Your task to perform on an android device: open app "Life360: Find Family & Friends" (install if not already installed) and enter user name: "gusts@gmail.com" and password: "assurers" Image 0: 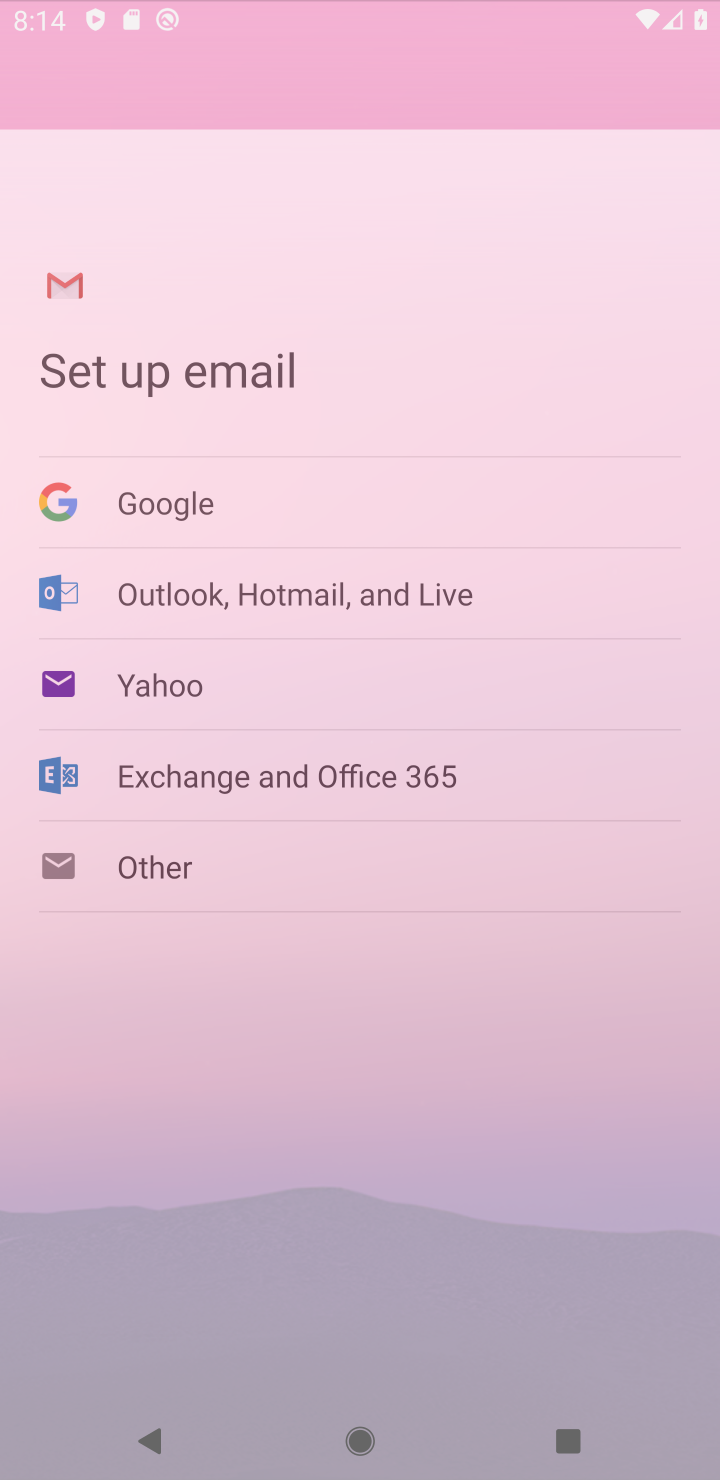
Step 0: click (597, 84)
Your task to perform on an android device: open app "Life360: Find Family & Friends" (install if not already installed) and enter user name: "gusts@gmail.com" and password: "assurers" Image 1: 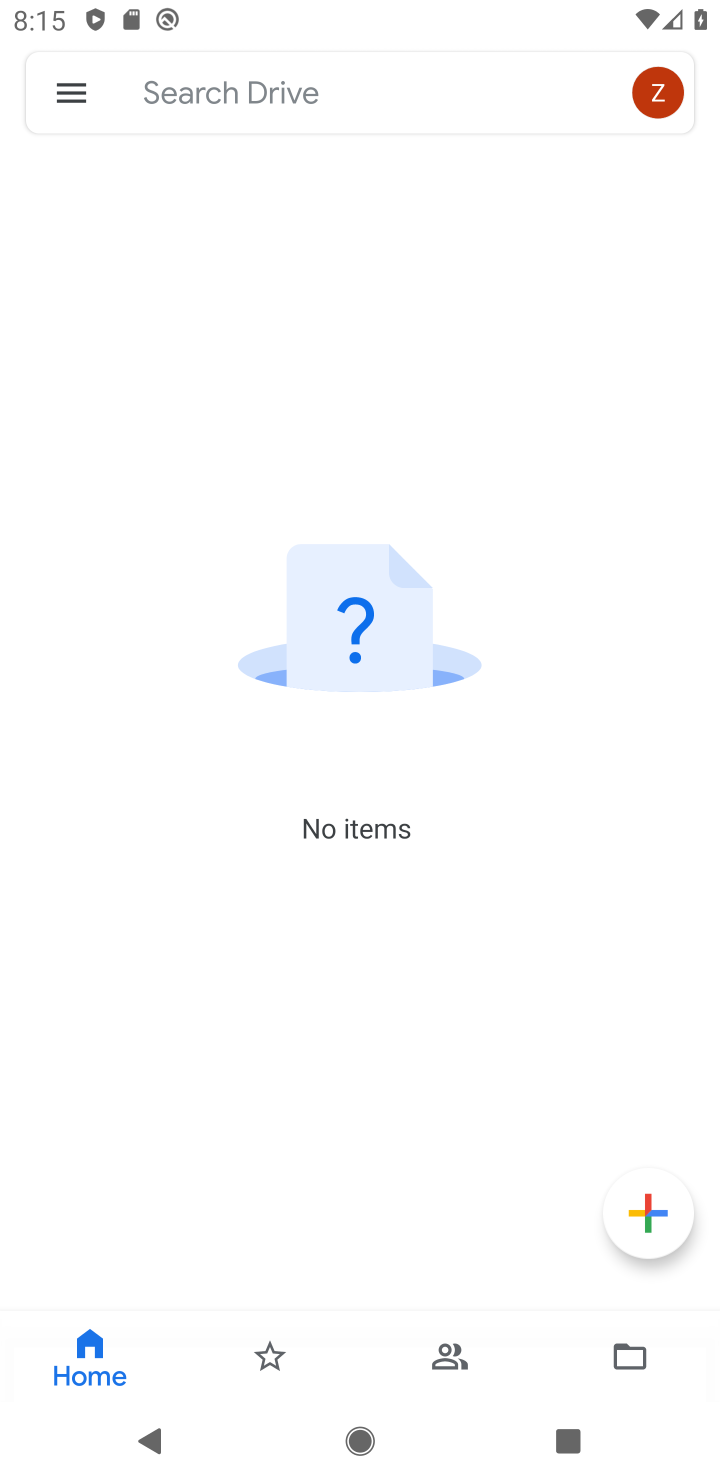
Step 1: press back button
Your task to perform on an android device: open app "Life360: Find Family & Friends" (install if not already installed) and enter user name: "gusts@gmail.com" and password: "assurers" Image 2: 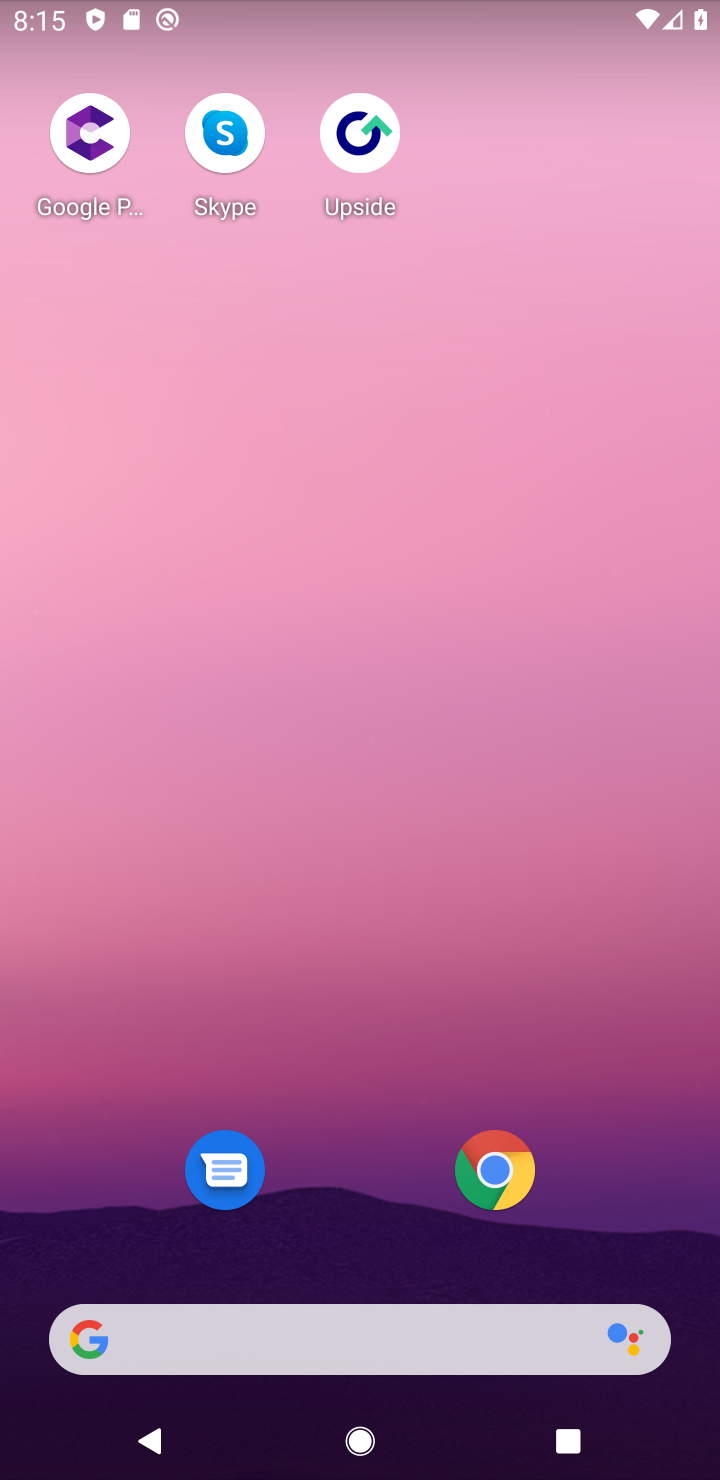
Step 2: drag from (345, 1305) to (540, 5)
Your task to perform on an android device: open app "Life360: Find Family & Friends" (install if not already installed) and enter user name: "gusts@gmail.com" and password: "assurers" Image 3: 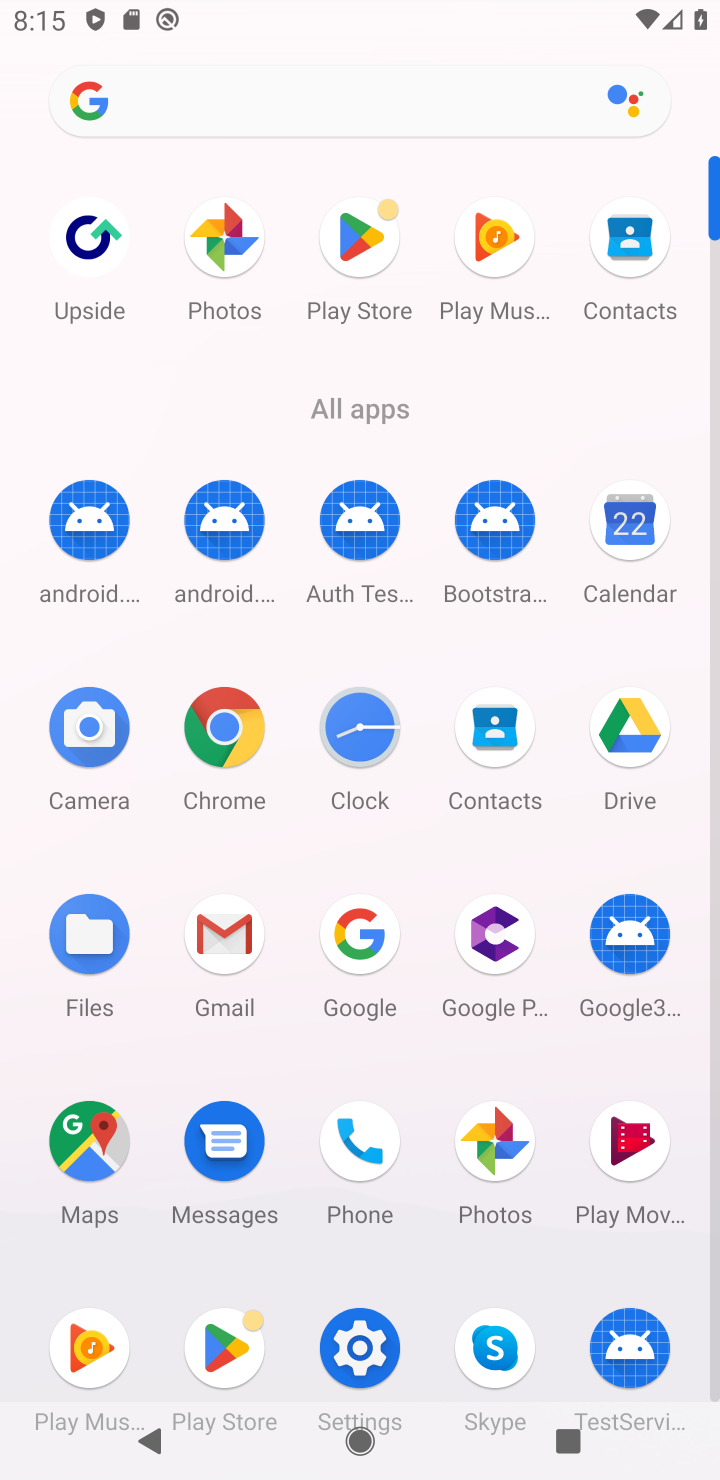
Step 3: click (370, 230)
Your task to perform on an android device: open app "Life360: Find Family & Friends" (install if not already installed) and enter user name: "gusts@gmail.com" and password: "assurers" Image 4: 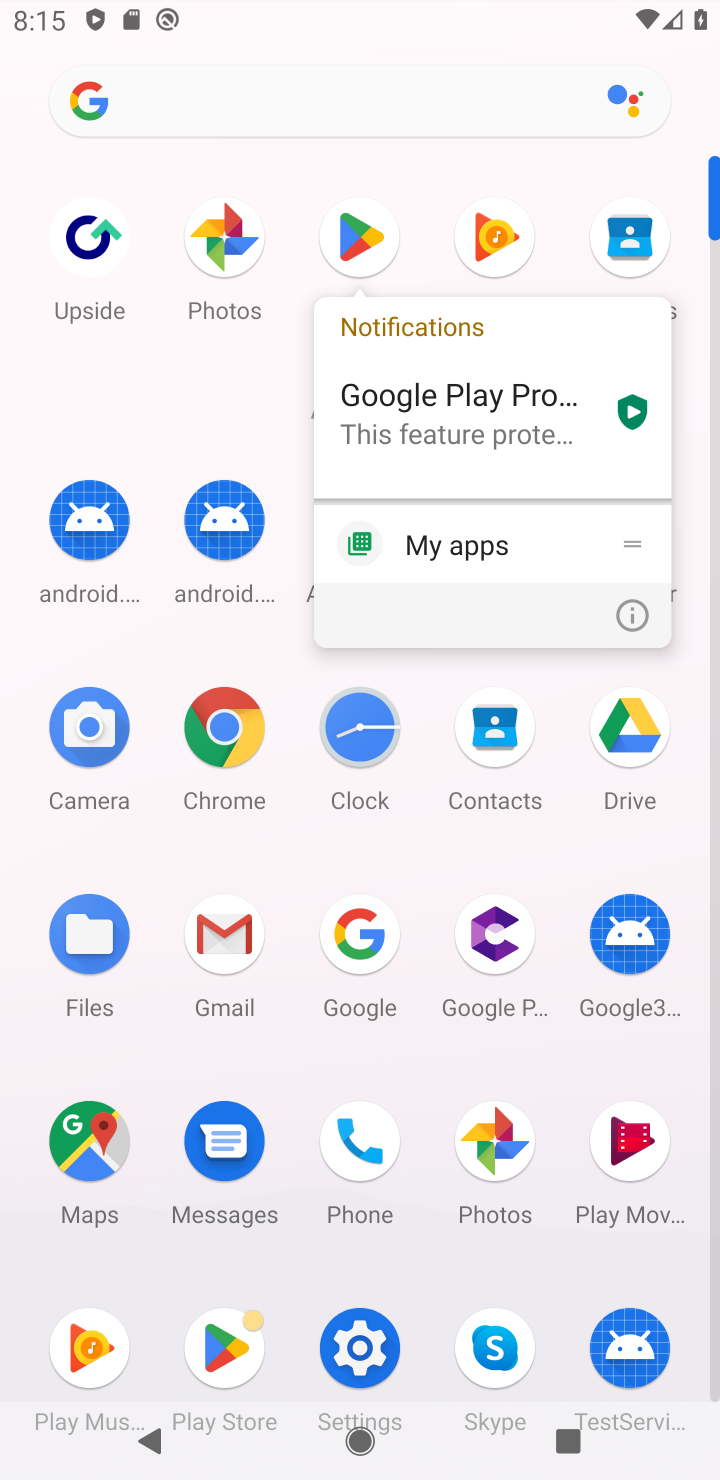
Step 4: click (368, 230)
Your task to perform on an android device: open app "Life360: Find Family & Friends" (install if not already installed) and enter user name: "gusts@gmail.com" and password: "assurers" Image 5: 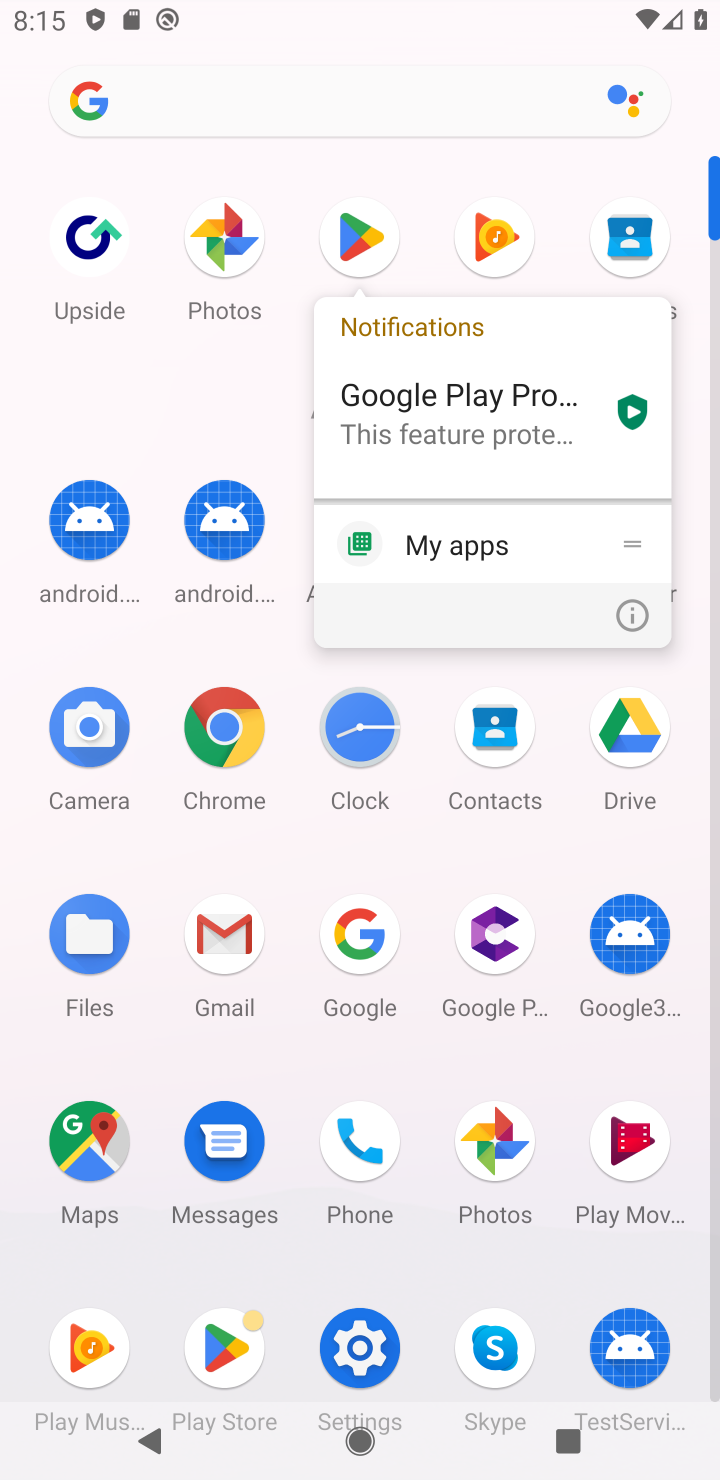
Step 5: click (350, 239)
Your task to perform on an android device: open app "Life360: Find Family & Friends" (install if not already installed) and enter user name: "gusts@gmail.com" and password: "assurers" Image 6: 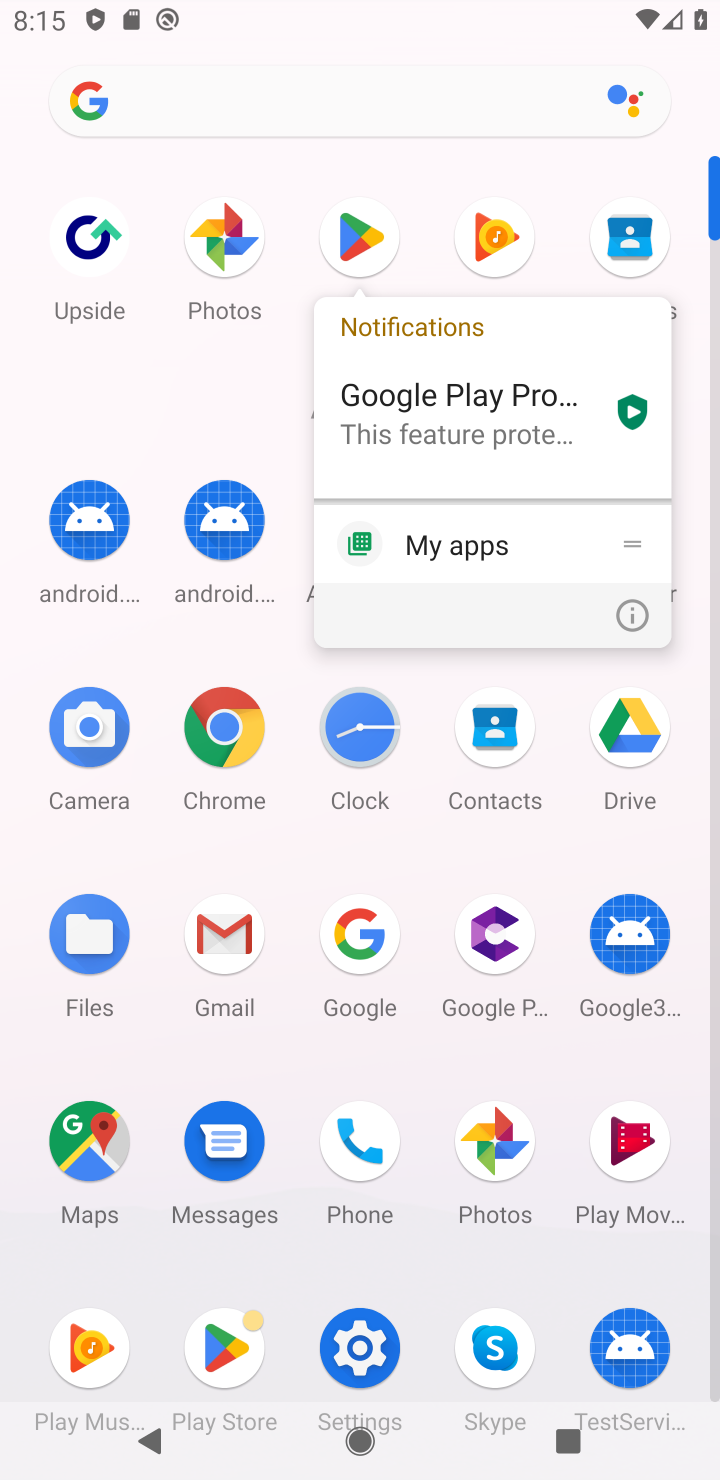
Step 6: click (371, 231)
Your task to perform on an android device: open app "Life360: Find Family & Friends" (install if not already installed) and enter user name: "gusts@gmail.com" and password: "assurers" Image 7: 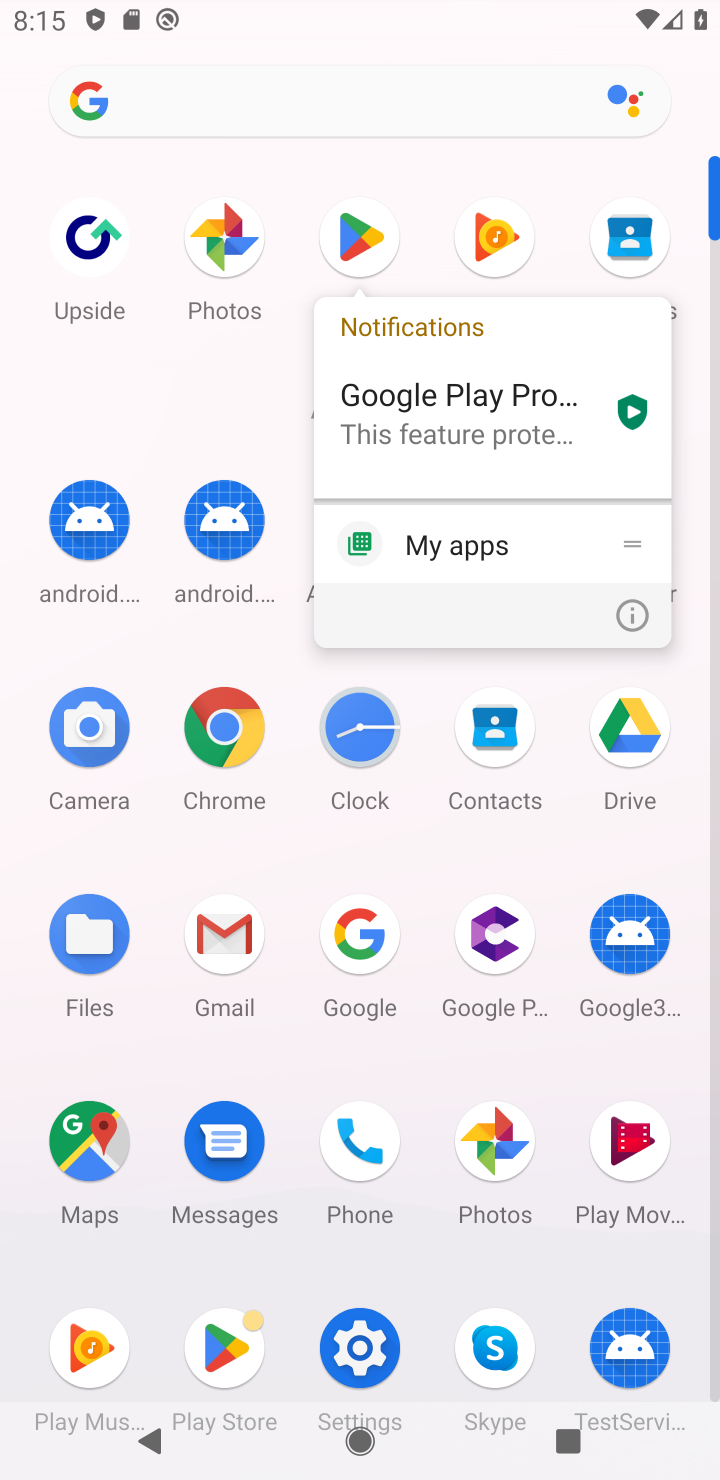
Step 7: click (365, 243)
Your task to perform on an android device: open app "Life360: Find Family & Friends" (install if not already installed) and enter user name: "gusts@gmail.com" and password: "assurers" Image 8: 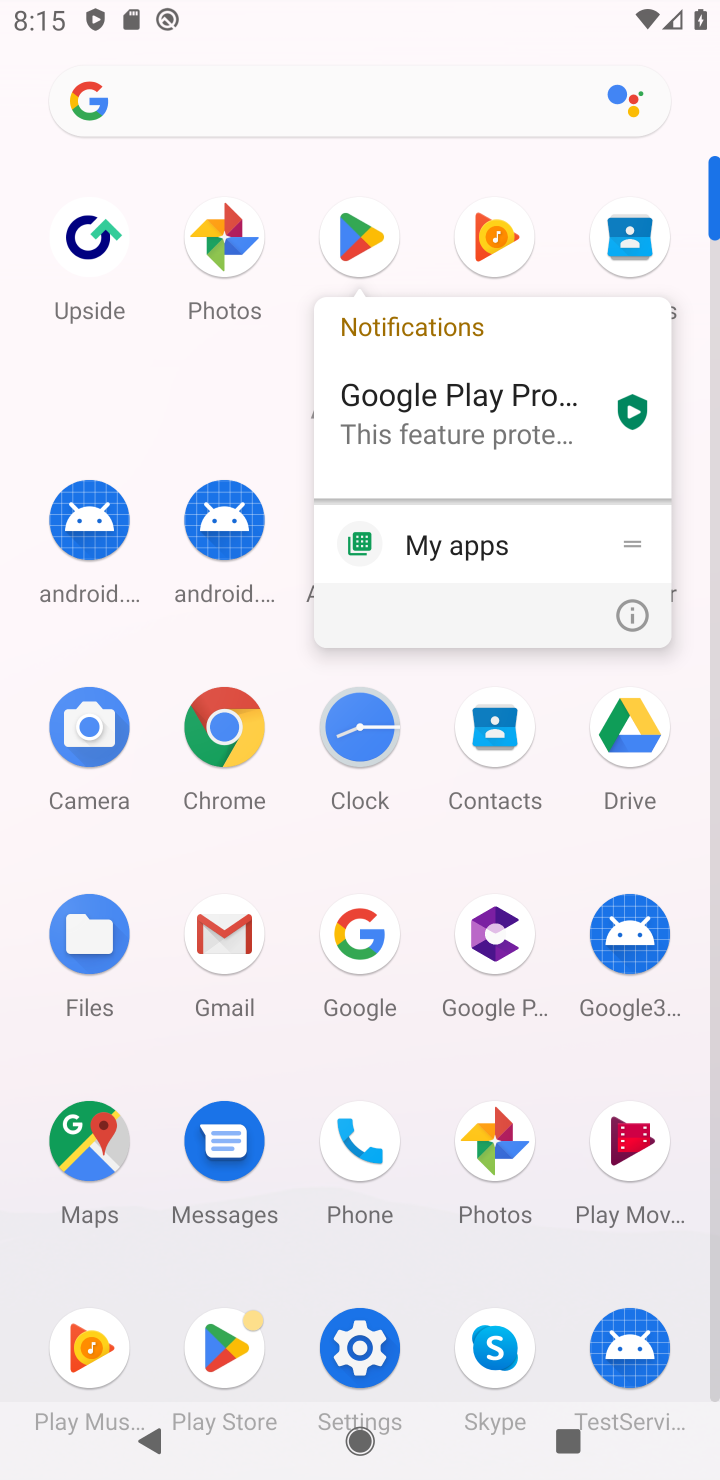
Step 8: click (347, 245)
Your task to perform on an android device: open app "Life360: Find Family & Friends" (install if not already installed) and enter user name: "gusts@gmail.com" and password: "assurers" Image 9: 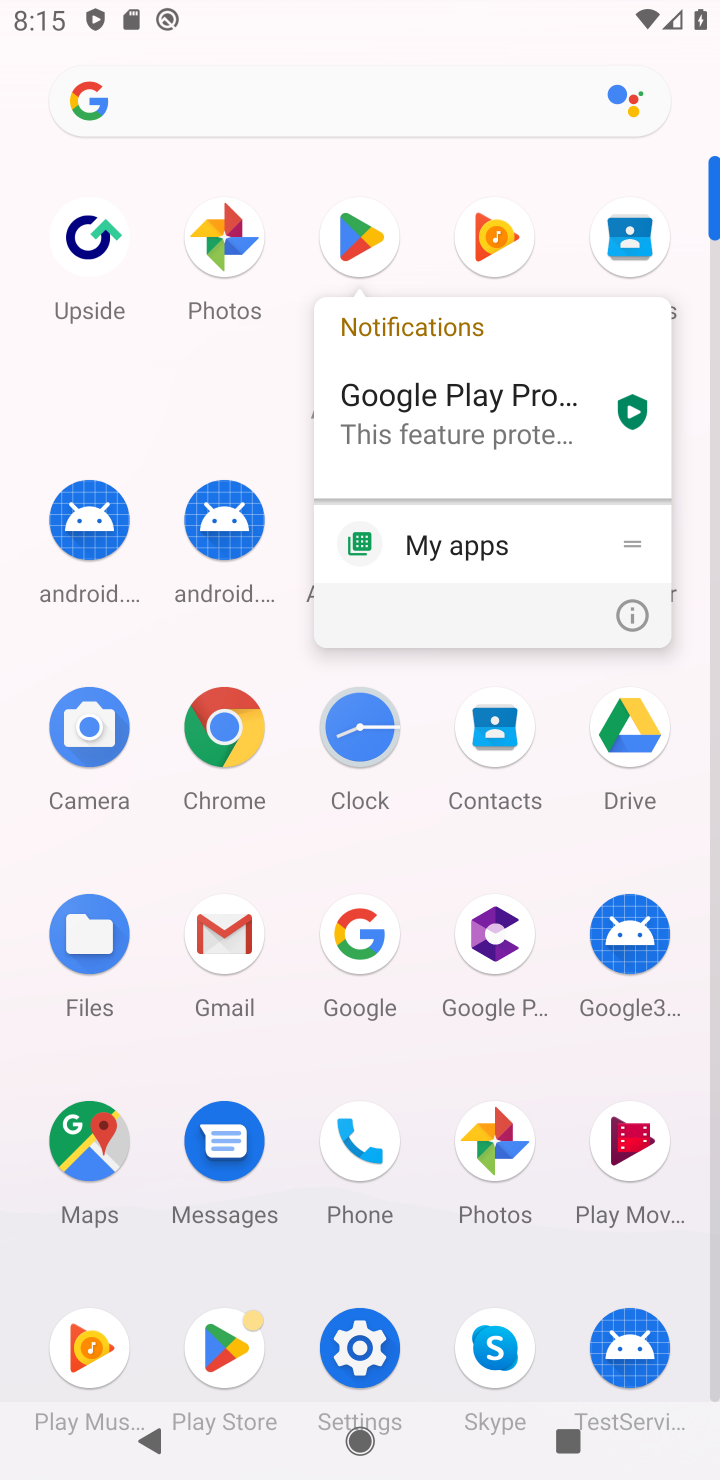
Step 9: click (358, 237)
Your task to perform on an android device: open app "Life360: Find Family & Friends" (install if not already installed) and enter user name: "gusts@gmail.com" and password: "assurers" Image 10: 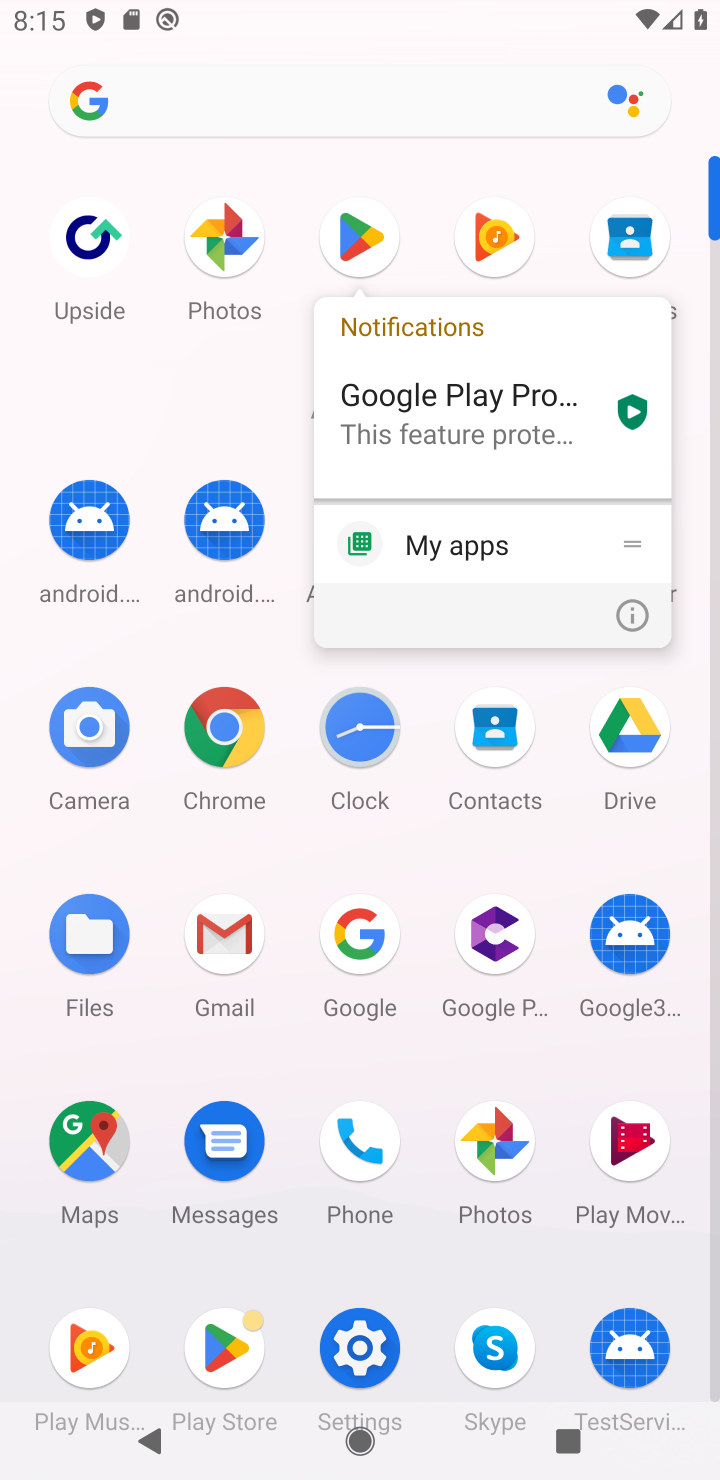
Step 10: click (365, 250)
Your task to perform on an android device: open app "Life360: Find Family & Friends" (install if not already installed) and enter user name: "gusts@gmail.com" and password: "assurers" Image 11: 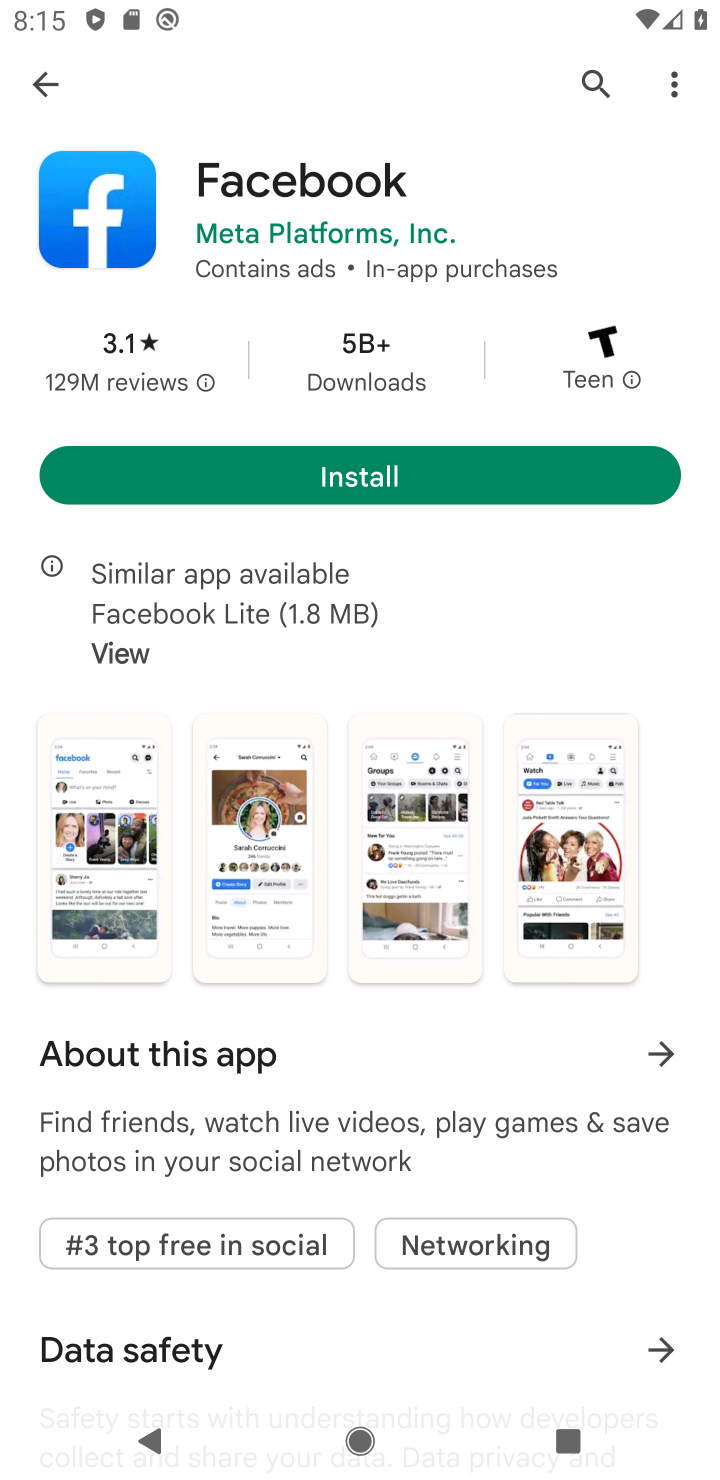
Step 11: click (586, 87)
Your task to perform on an android device: open app "Life360: Find Family & Friends" (install if not already installed) and enter user name: "gusts@gmail.com" and password: "assurers" Image 12: 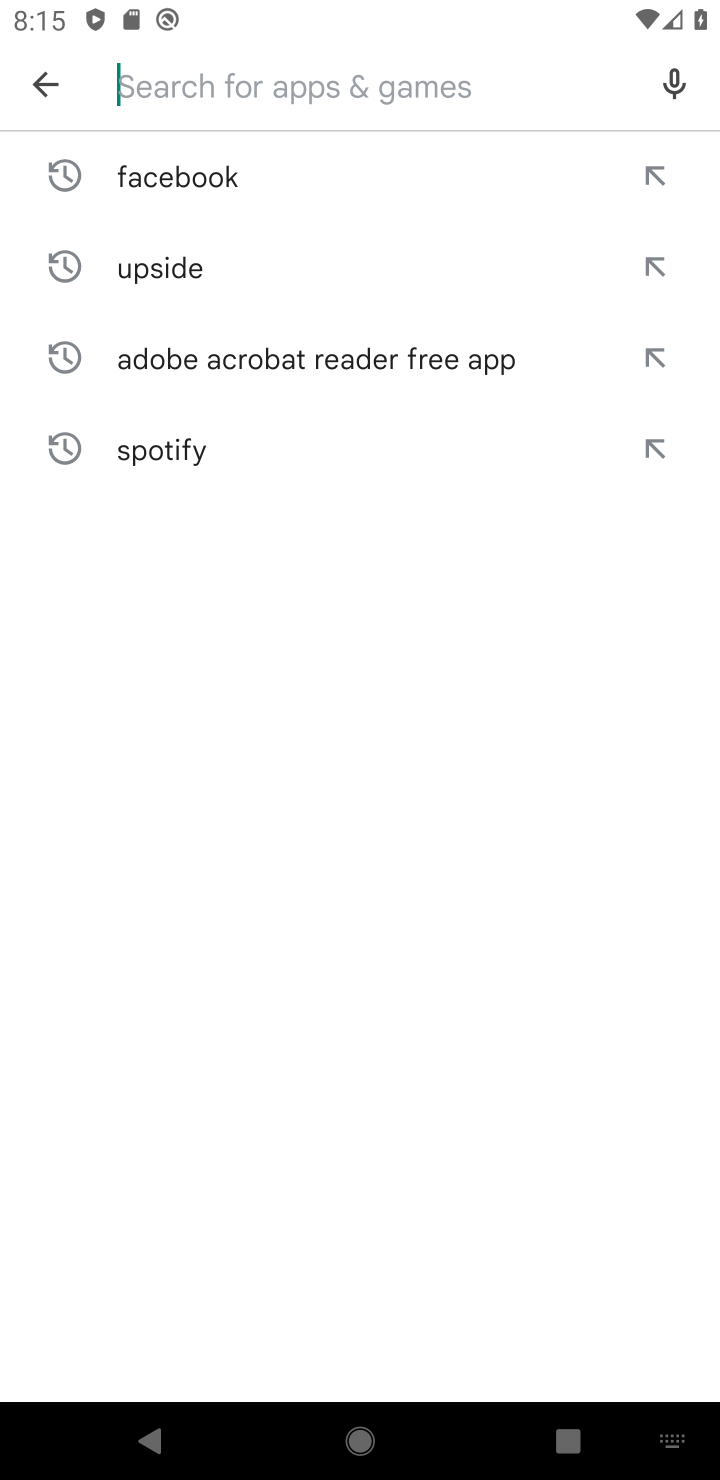
Step 12: click (302, 93)
Your task to perform on an android device: open app "Life360: Find Family & Friends" (install if not already installed) and enter user name: "gusts@gmail.com" and password: "assurers" Image 13: 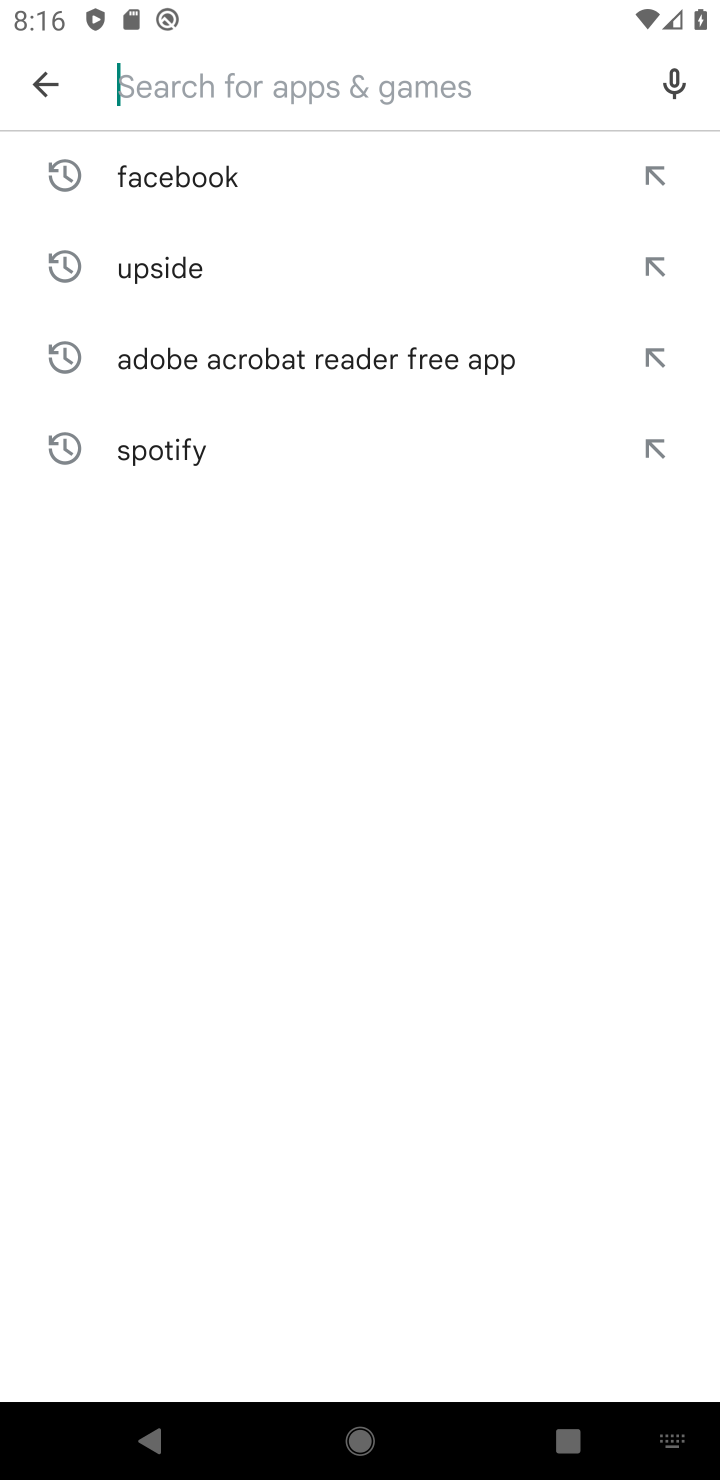
Step 13: type "Life360"
Your task to perform on an android device: open app "Life360: Find Family & Friends" (install if not already installed) and enter user name: "gusts@gmail.com" and password: "assurers" Image 14: 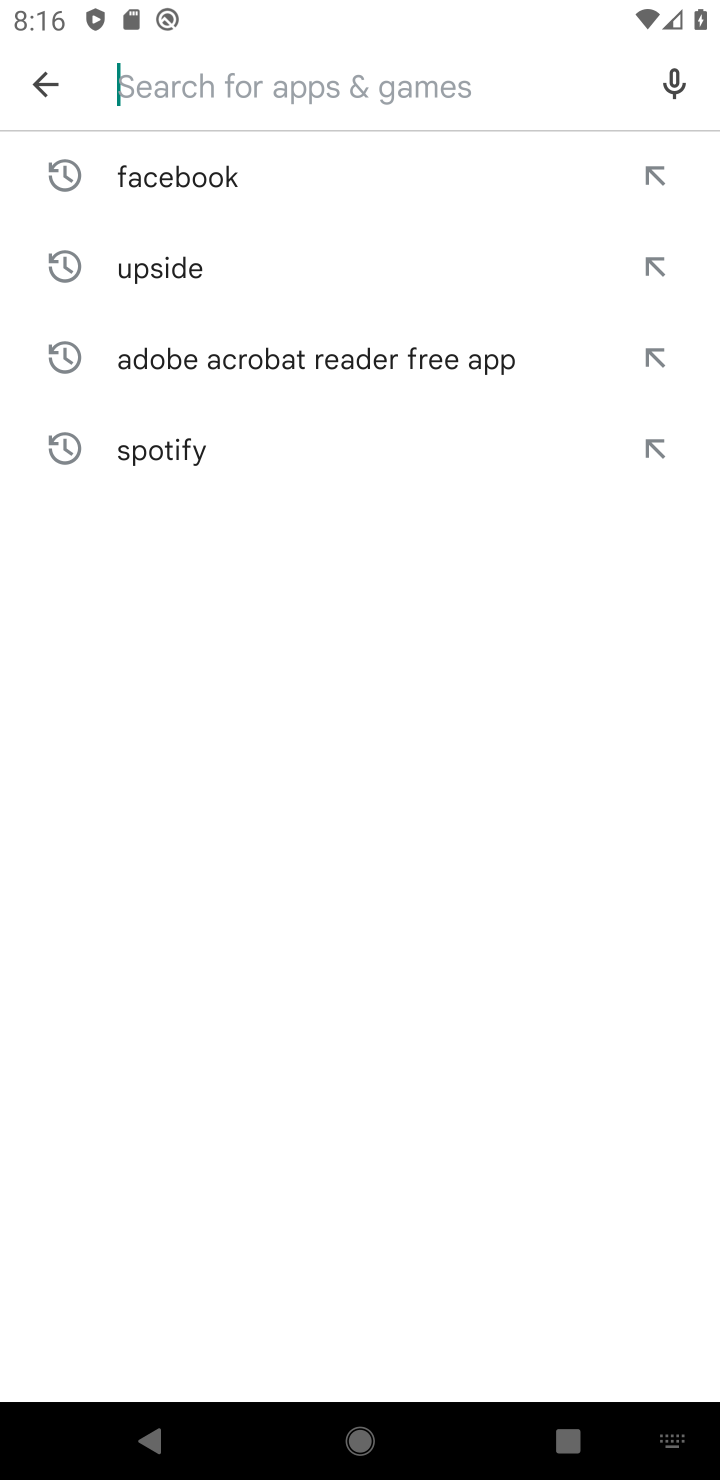
Step 14: click (544, 987)
Your task to perform on an android device: open app "Life360: Find Family & Friends" (install if not already installed) and enter user name: "gusts@gmail.com" and password: "assurers" Image 15: 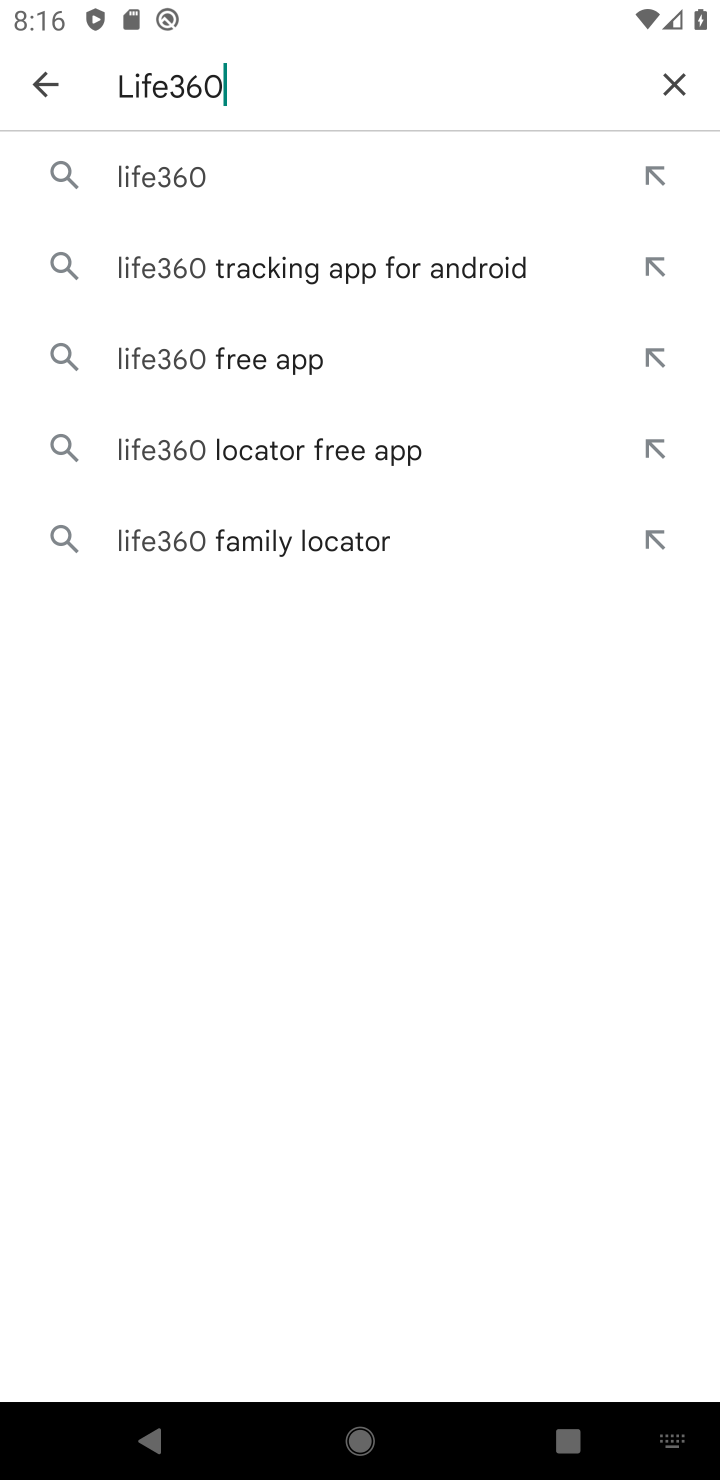
Step 15: click (156, 185)
Your task to perform on an android device: open app "Life360: Find Family & Friends" (install if not already installed) and enter user name: "gusts@gmail.com" and password: "assurers" Image 16: 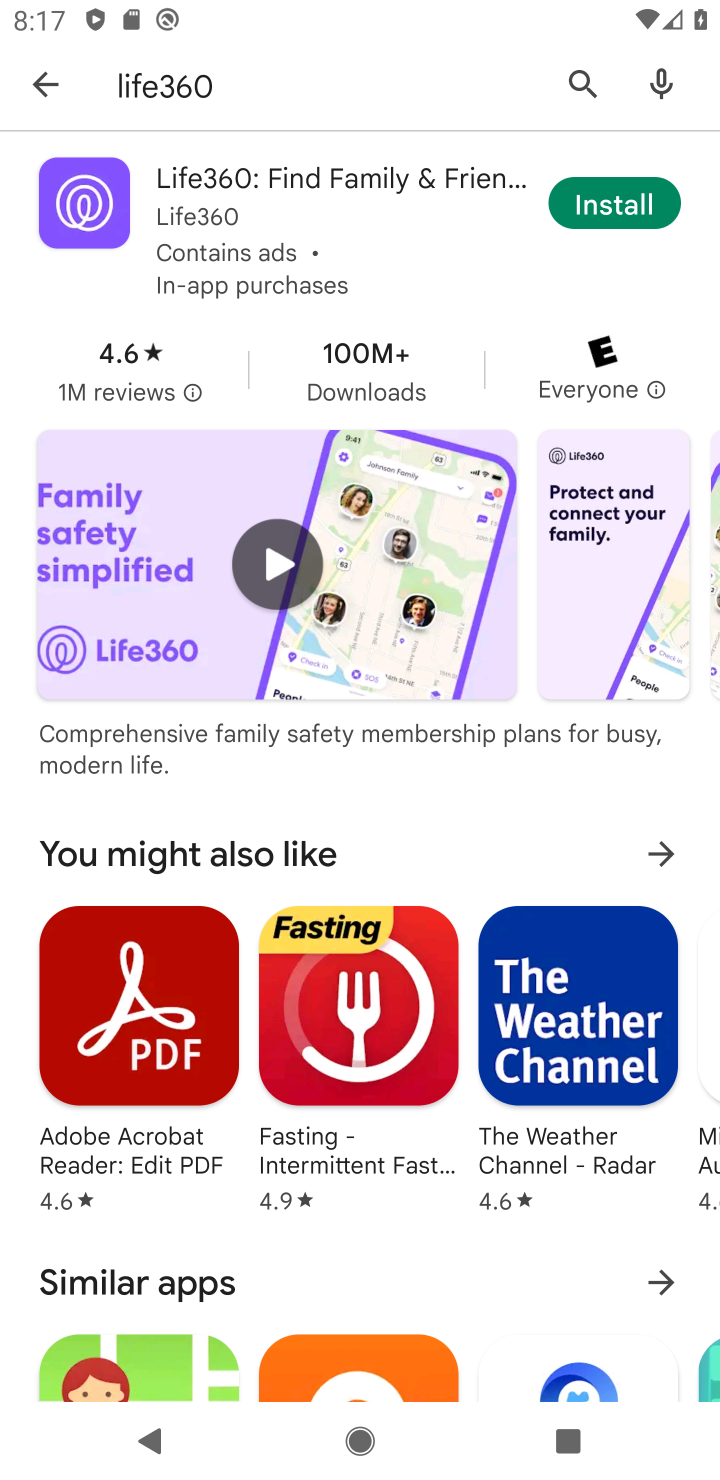
Step 16: click (631, 193)
Your task to perform on an android device: open app "Life360: Find Family & Friends" (install if not already installed) and enter user name: "gusts@gmail.com" and password: "assurers" Image 17: 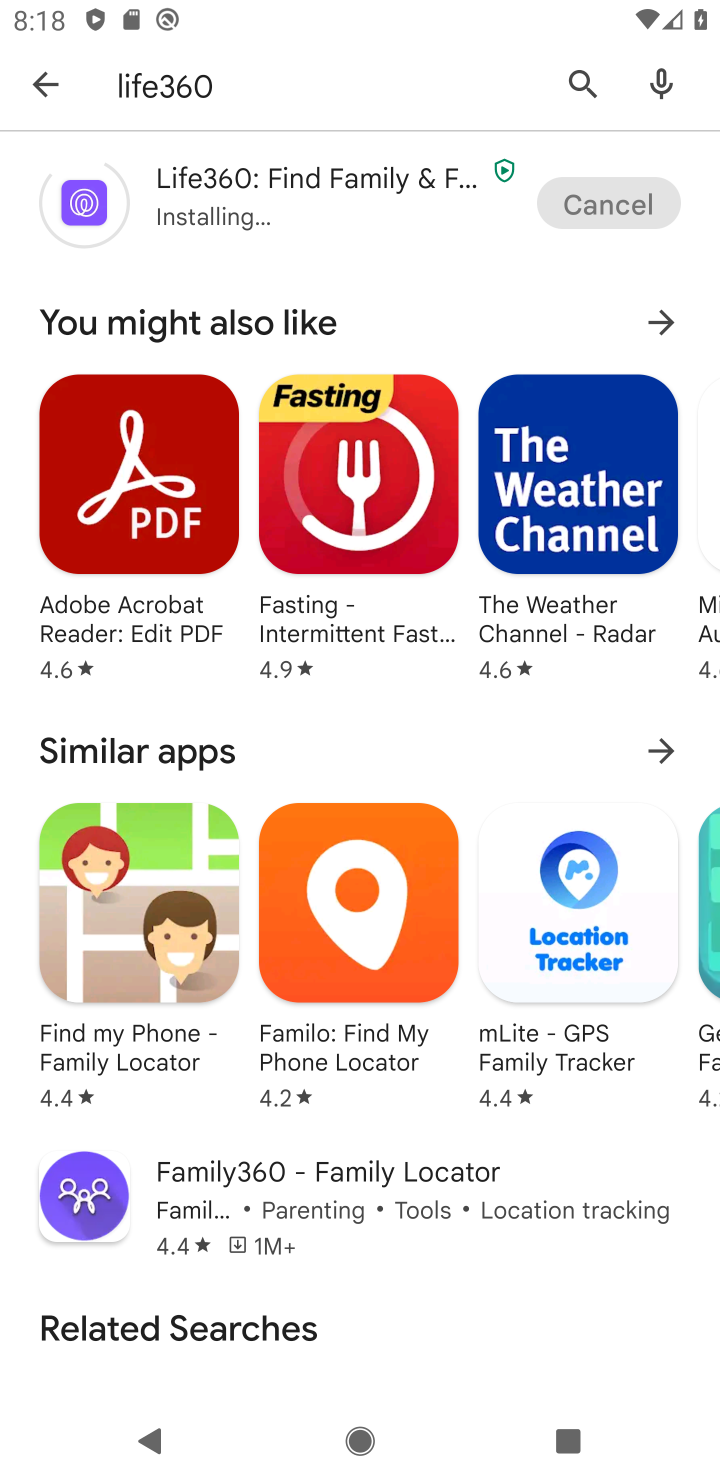
Step 17: press back button
Your task to perform on an android device: open app "Life360: Find Family & Friends" (install if not already installed) and enter user name: "gusts@gmail.com" and password: "assurers" Image 18: 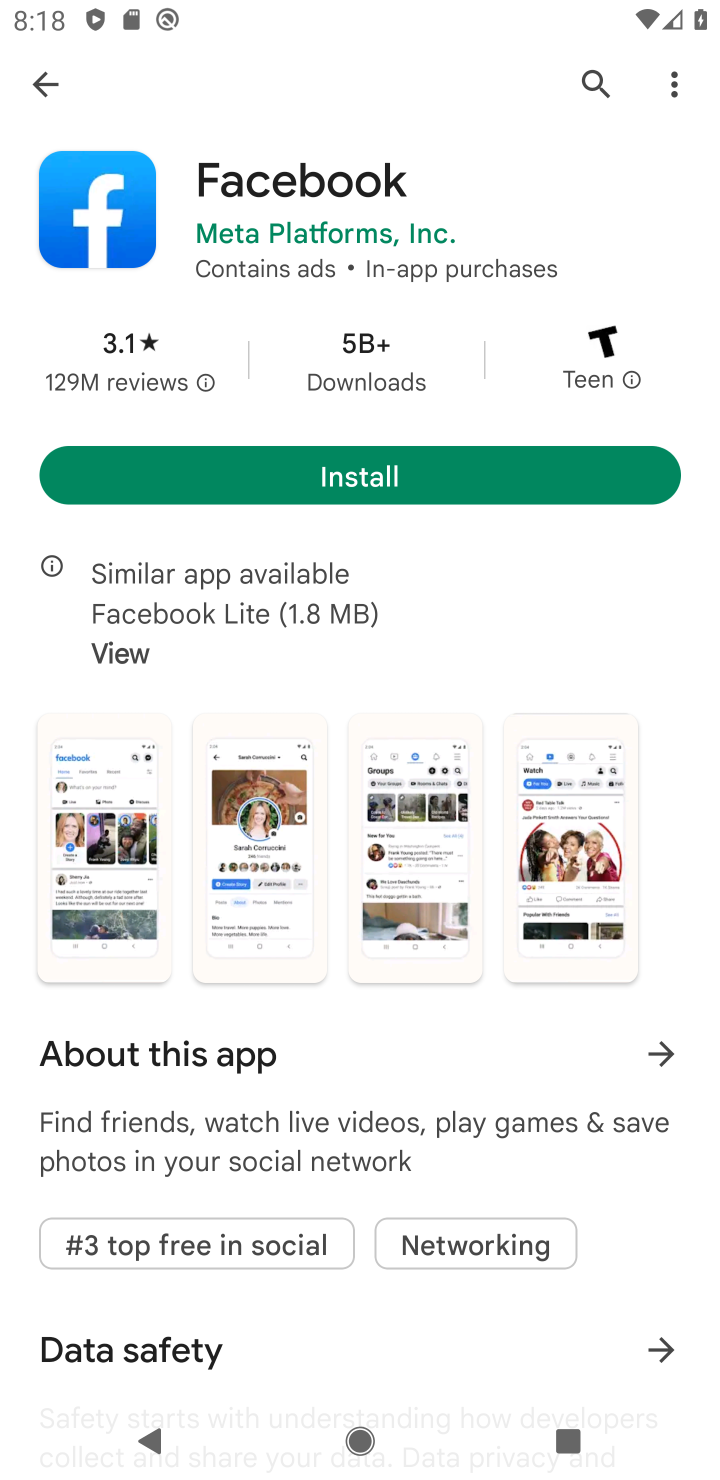
Step 18: click (592, 79)
Your task to perform on an android device: open app "Life360: Find Family & Friends" (install if not already installed) and enter user name: "gusts@gmail.com" and password: "assurers" Image 19: 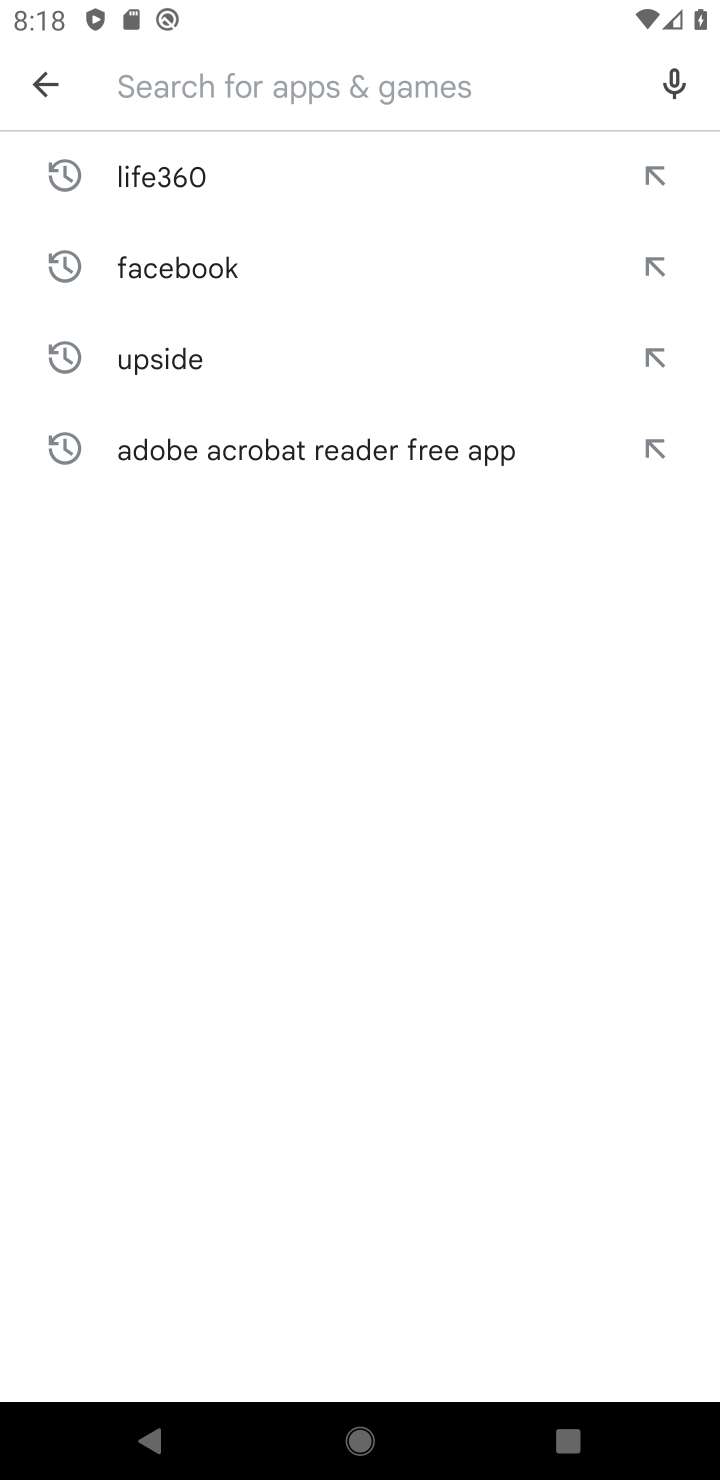
Step 19: click (179, 180)
Your task to perform on an android device: open app "Life360: Find Family & Friends" (install if not already installed) and enter user name: "gusts@gmail.com" and password: "assurers" Image 20: 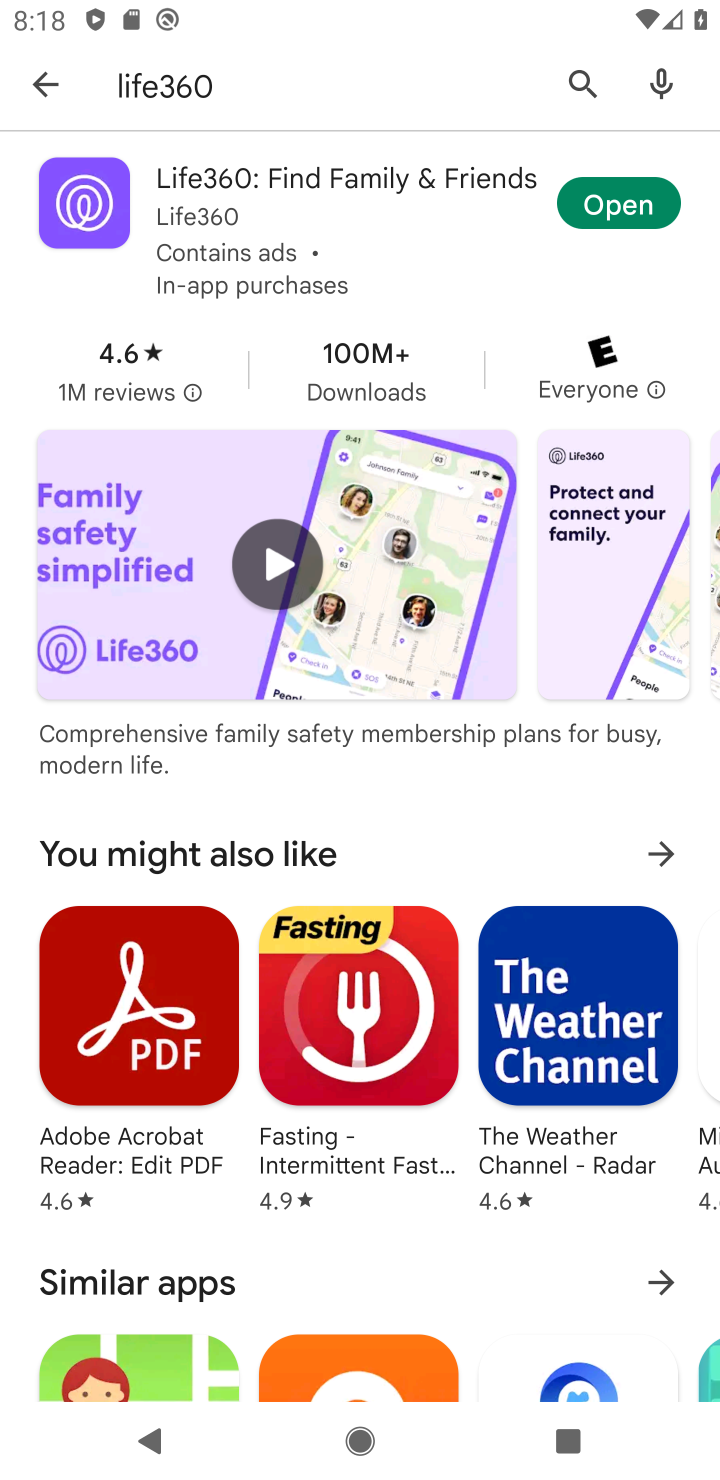
Step 20: click (590, 214)
Your task to perform on an android device: open app "Life360: Find Family & Friends" (install if not already installed) and enter user name: "gusts@gmail.com" and password: "assurers" Image 21: 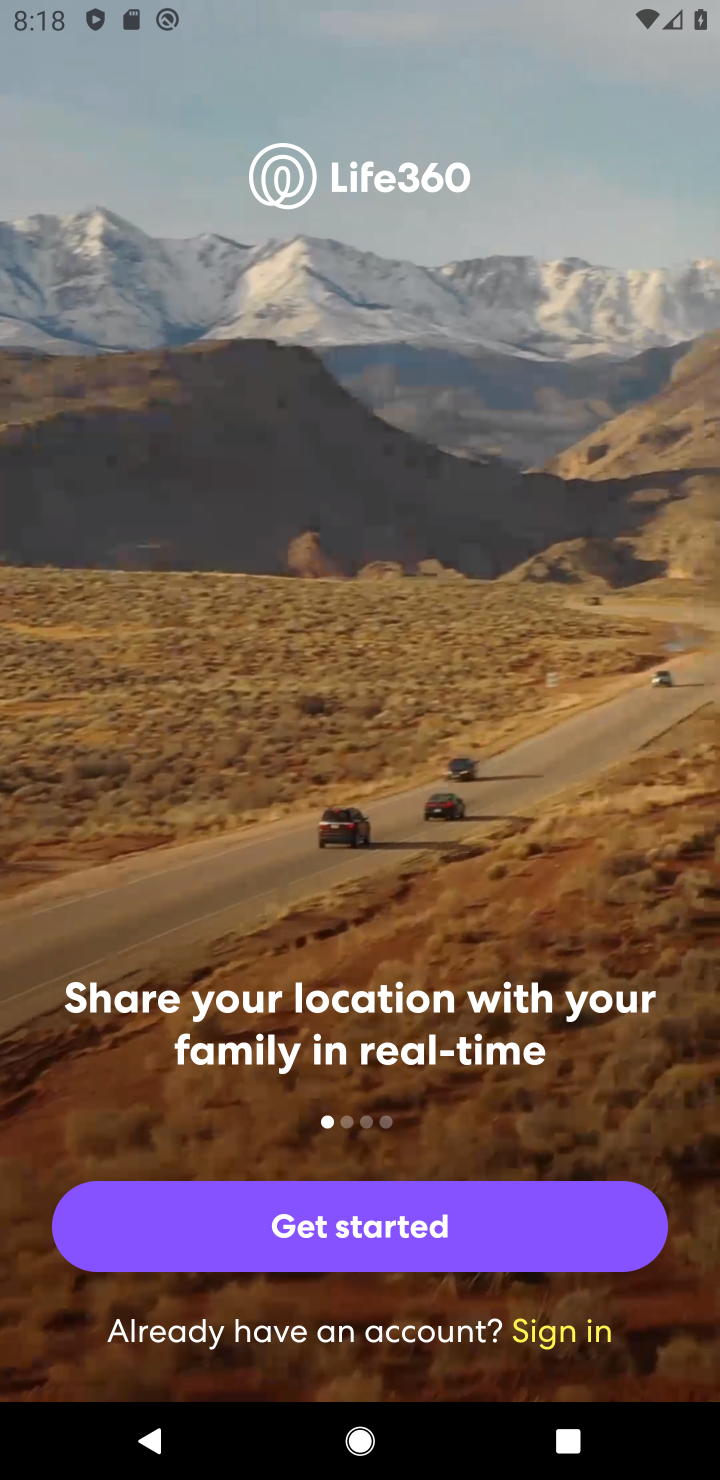
Step 21: click (576, 1336)
Your task to perform on an android device: open app "Life360: Find Family & Friends" (install if not already installed) and enter user name: "gusts@gmail.com" and password: "assurers" Image 22: 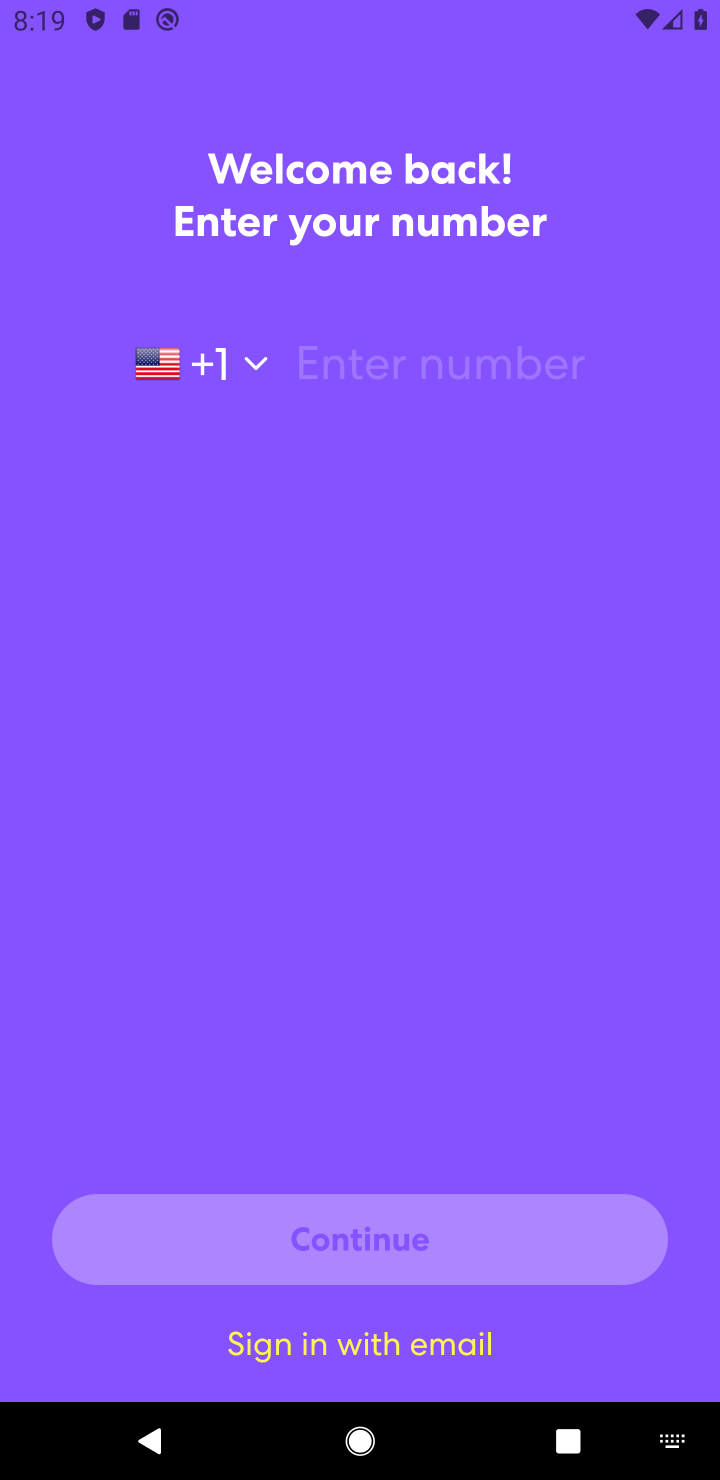
Step 22: click (388, 1336)
Your task to perform on an android device: open app "Life360: Find Family & Friends" (install if not already installed) and enter user name: "gusts@gmail.com" and password: "assurers" Image 23: 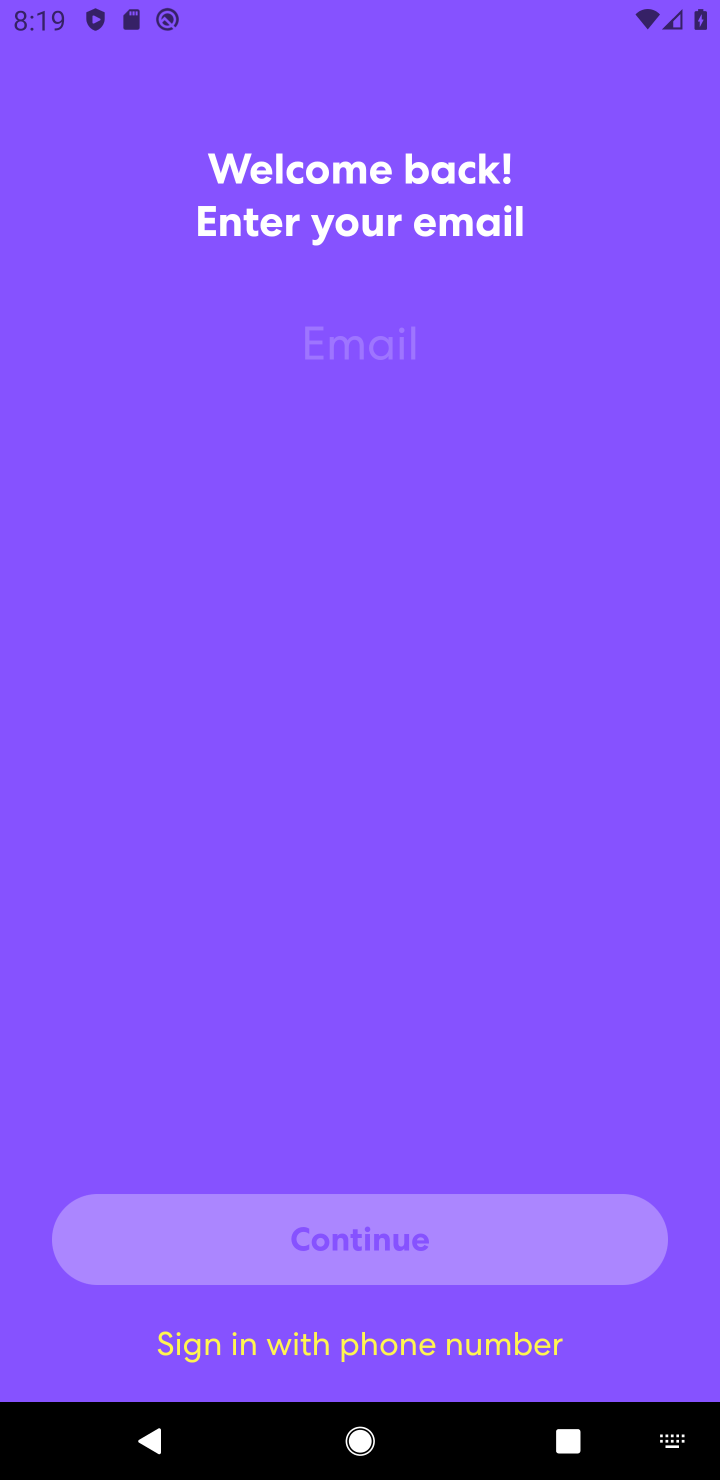
Step 23: click (293, 341)
Your task to perform on an android device: open app "Life360: Find Family & Friends" (install if not already installed) and enter user name: "gusts@gmail.com" and password: "assurers" Image 24: 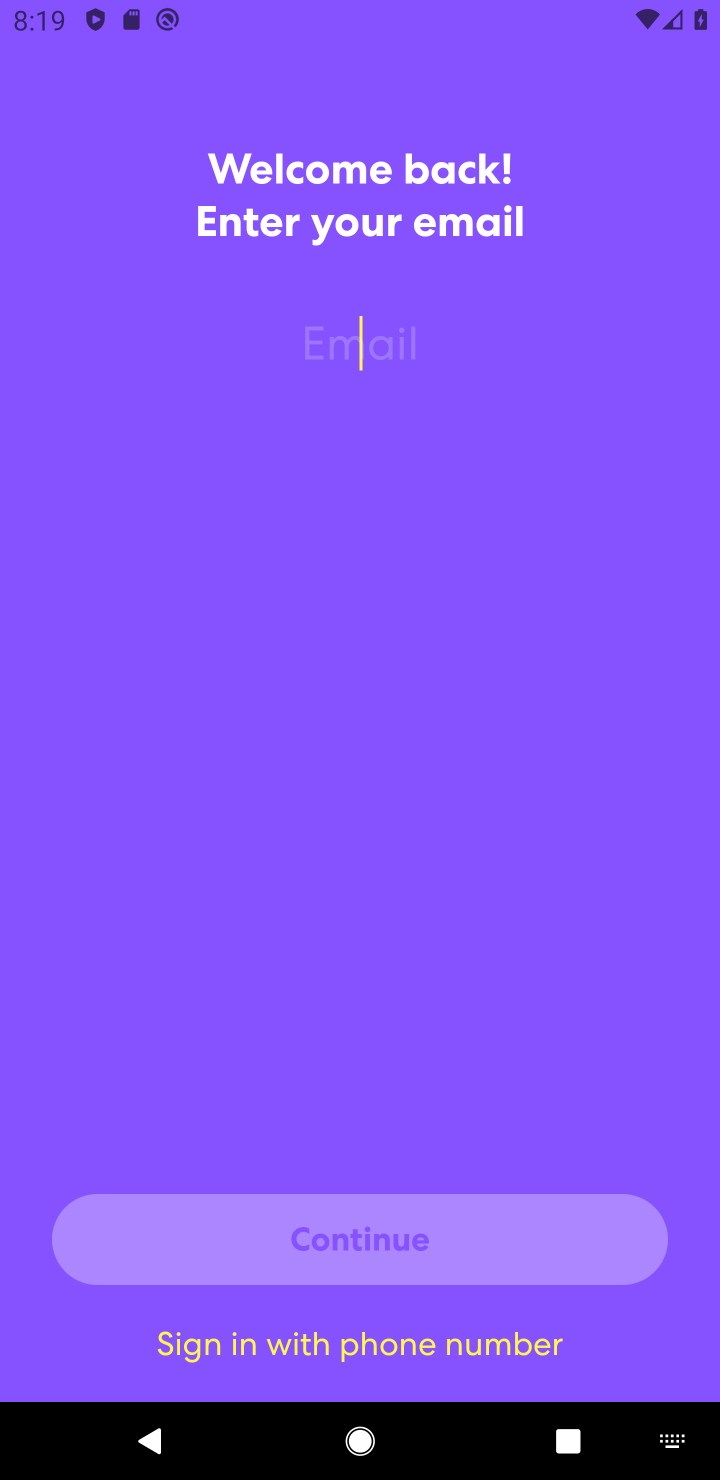
Step 24: type "gusts@gmail.com"
Your task to perform on an android device: open app "Life360: Find Family & Friends" (install if not already installed) and enter user name: "gusts@gmail.com" and password: "assurers" Image 25: 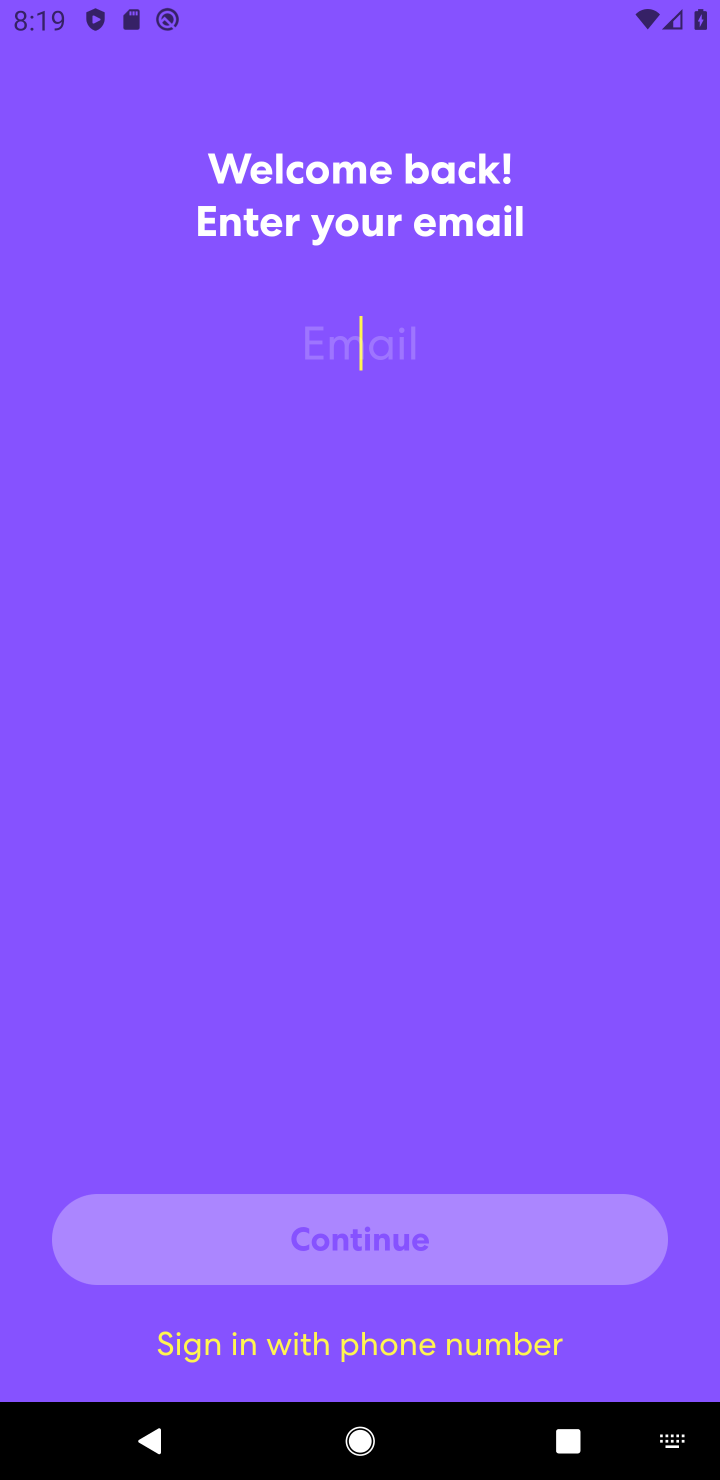
Step 25: click (530, 927)
Your task to perform on an android device: open app "Life360: Find Family & Friends" (install if not already installed) and enter user name: "gusts@gmail.com" and password: "assurers" Image 26: 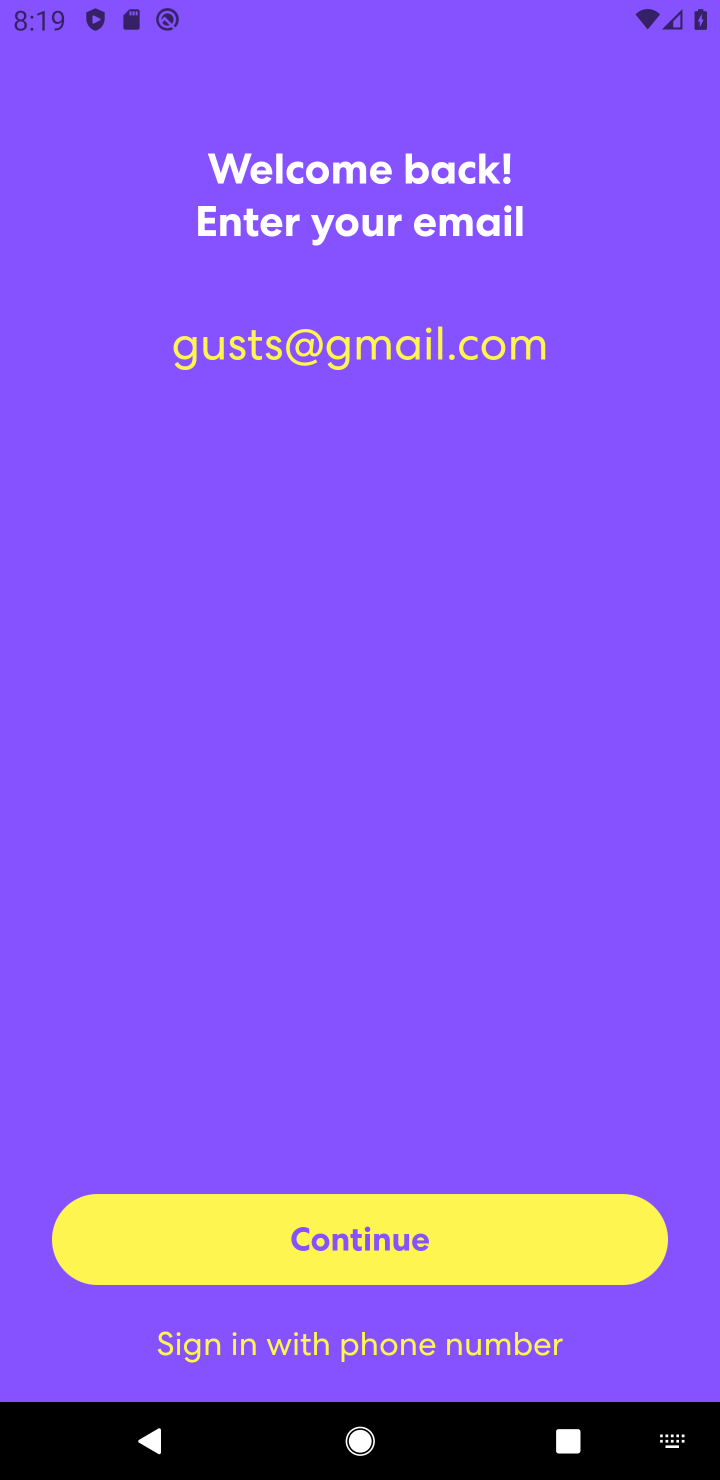
Step 26: click (376, 1253)
Your task to perform on an android device: open app "Life360: Find Family & Friends" (install if not already installed) and enter user name: "gusts@gmail.com" and password: "assurers" Image 27: 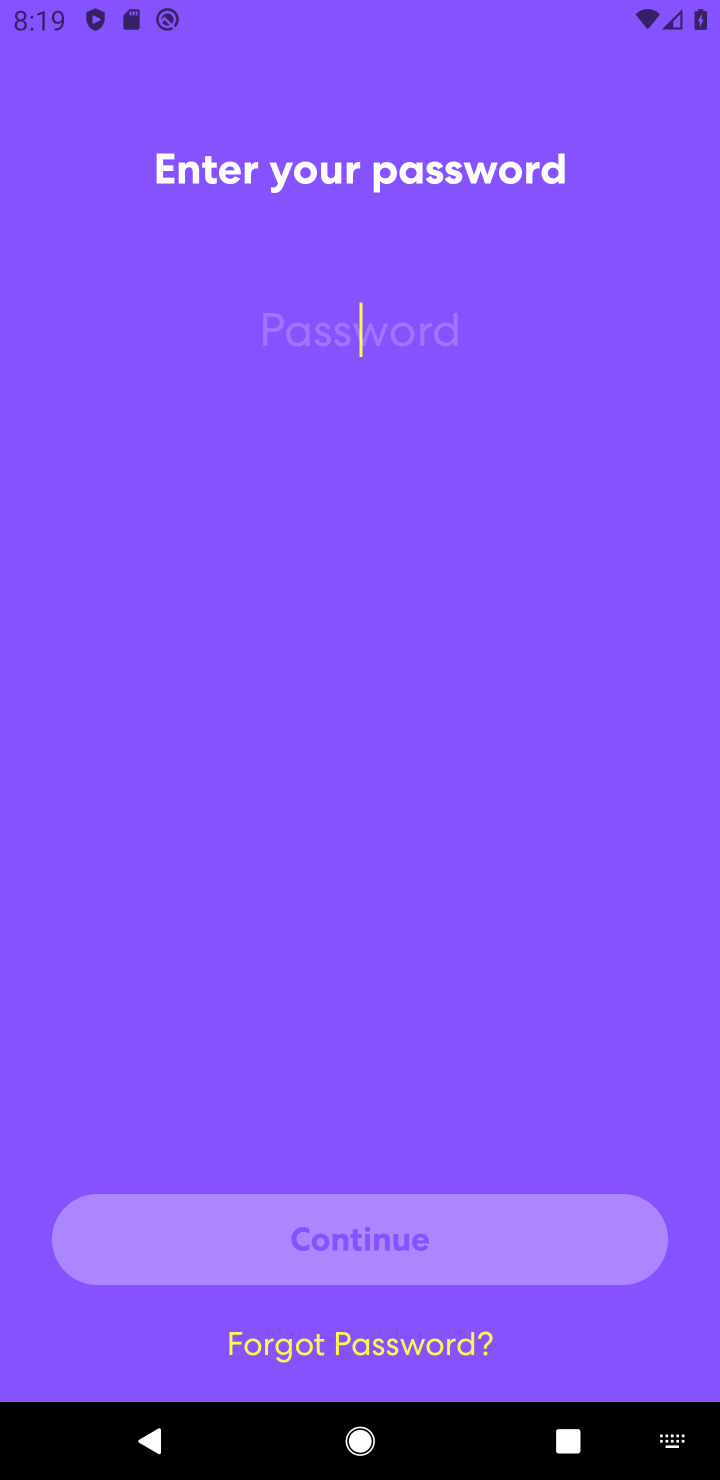
Step 27: click (327, 323)
Your task to perform on an android device: open app "Life360: Find Family & Friends" (install if not already installed) and enter user name: "gusts@gmail.com" and password: "assurers" Image 28: 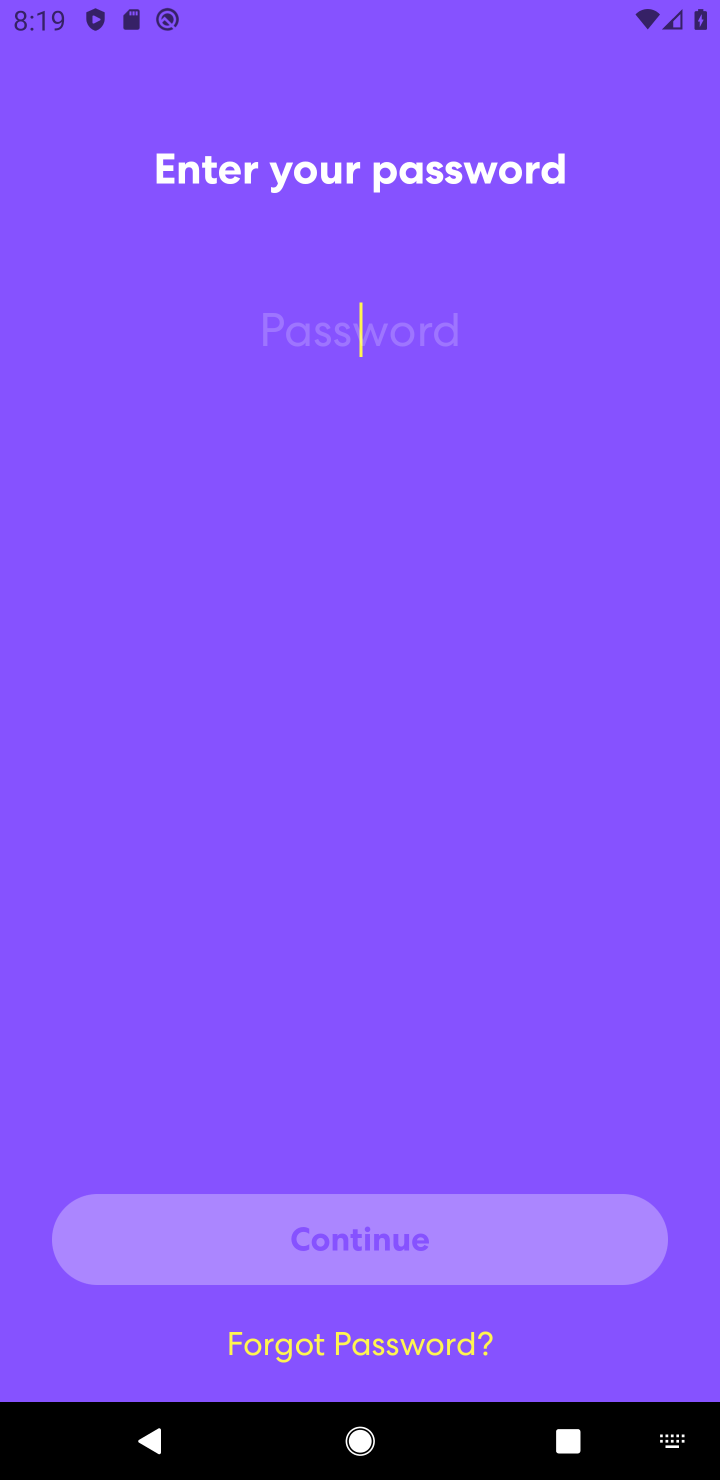
Step 28: type "assurers"
Your task to perform on an android device: open app "Life360: Find Family & Friends" (install if not already installed) and enter user name: "gusts@gmail.com" and password: "assurers" Image 29: 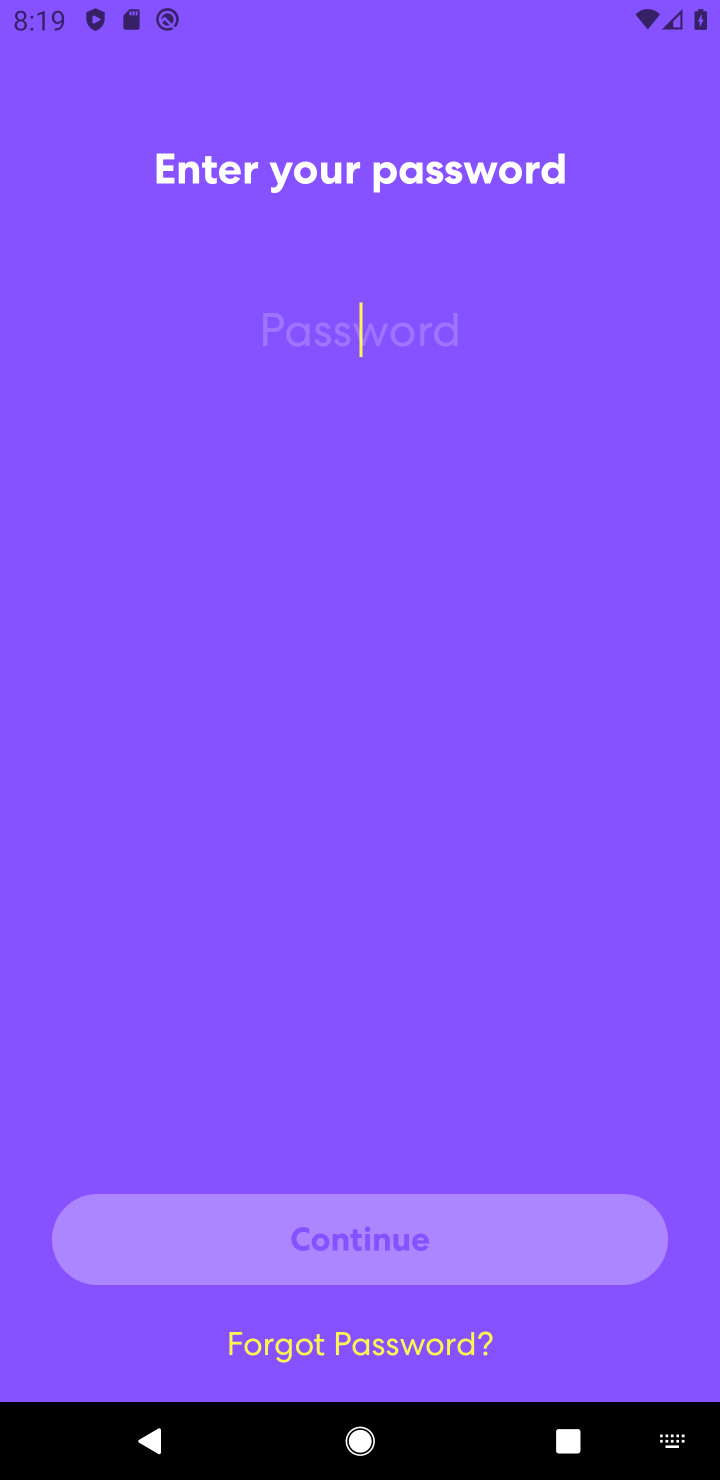
Step 29: click (410, 956)
Your task to perform on an android device: open app "Life360: Find Family & Friends" (install if not already installed) and enter user name: "gusts@gmail.com" and password: "assurers" Image 30: 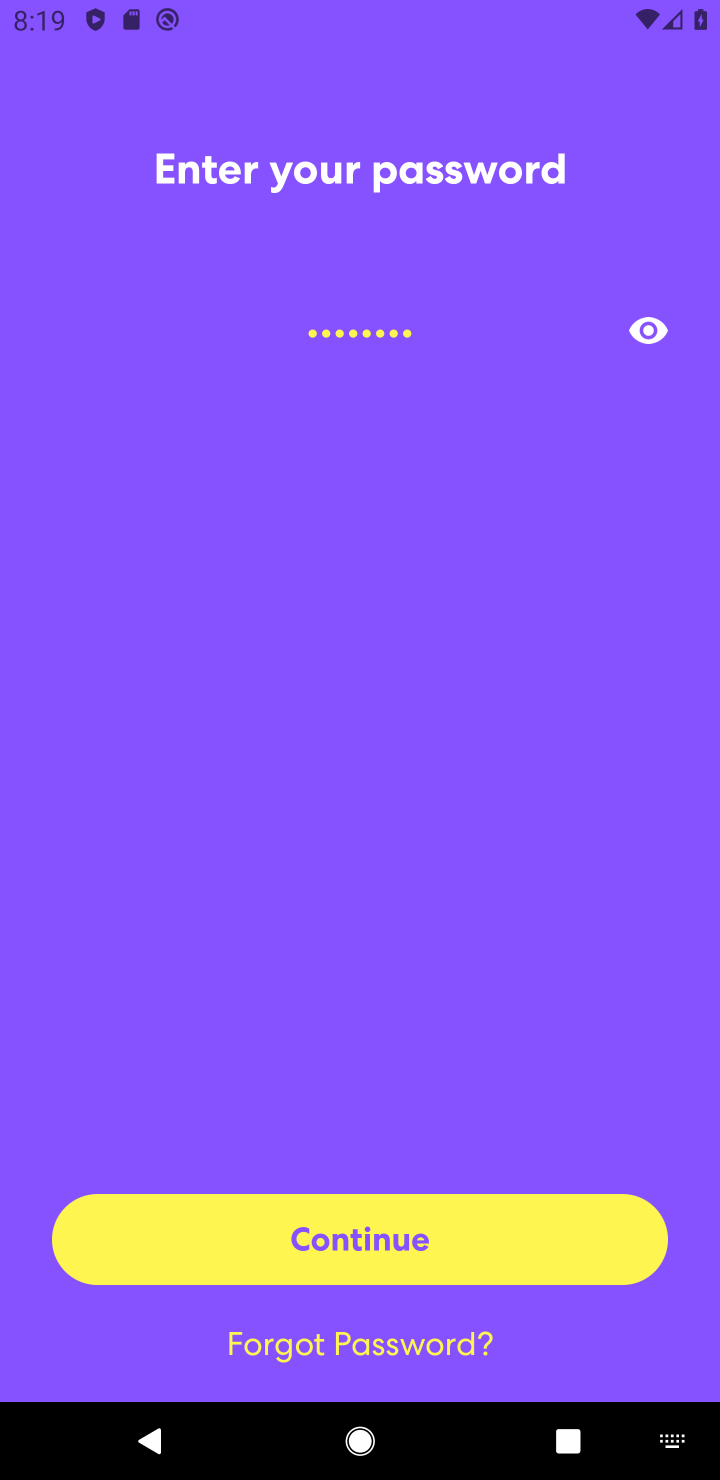
Step 30: task complete